Your task to perform on an android device: Open maps Image 0: 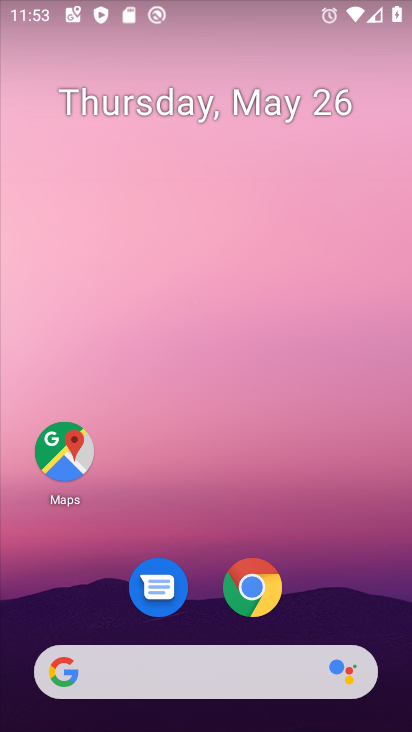
Step 0: drag from (244, 680) to (236, 11)
Your task to perform on an android device: Open maps Image 1: 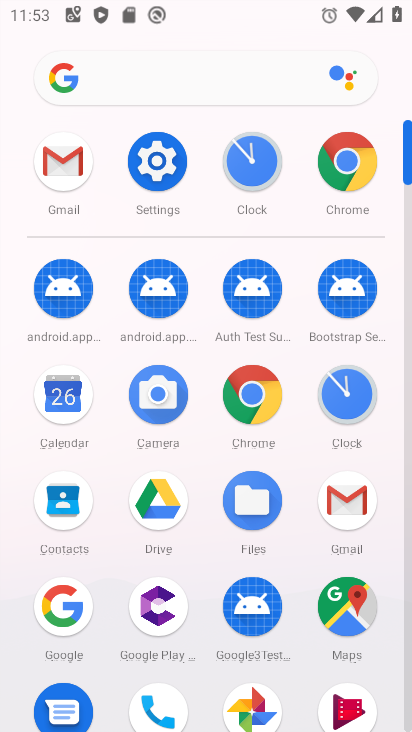
Step 1: click (340, 604)
Your task to perform on an android device: Open maps Image 2: 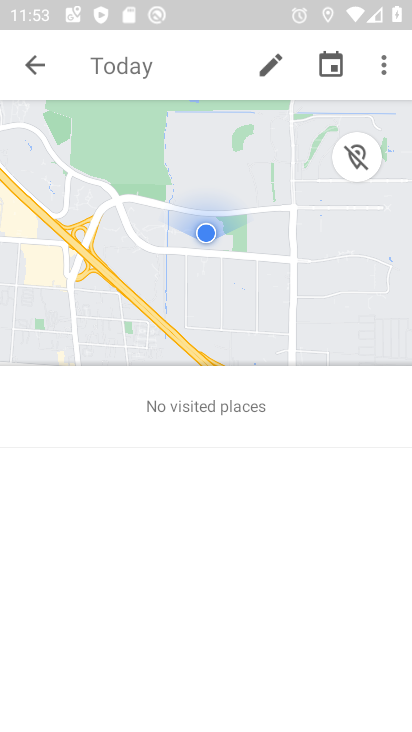
Step 2: click (27, 72)
Your task to perform on an android device: Open maps Image 3: 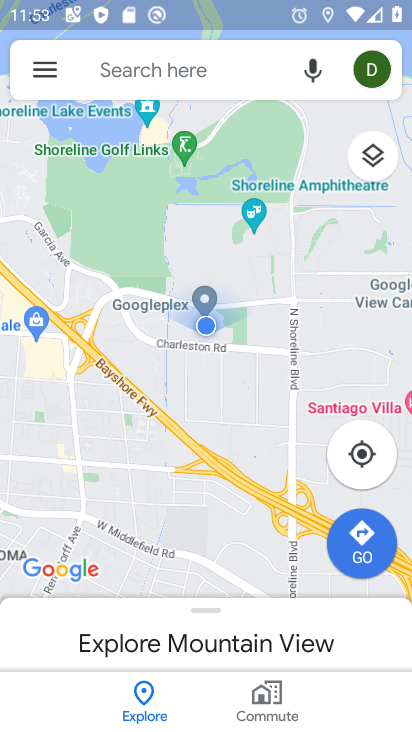
Step 3: task complete